Your task to perform on an android device: change the clock style Image 0: 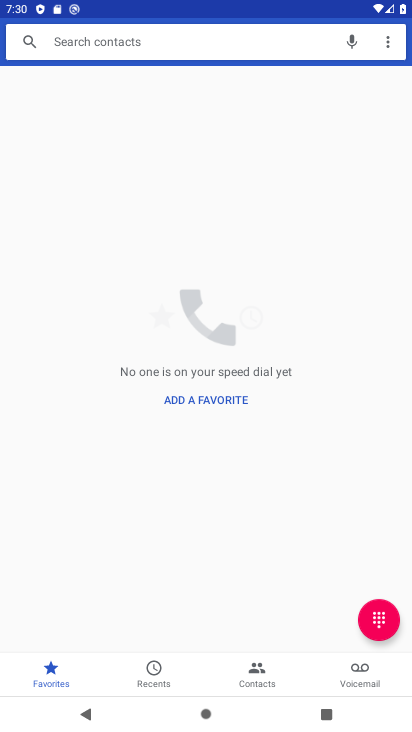
Step 0: press home button
Your task to perform on an android device: change the clock style Image 1: 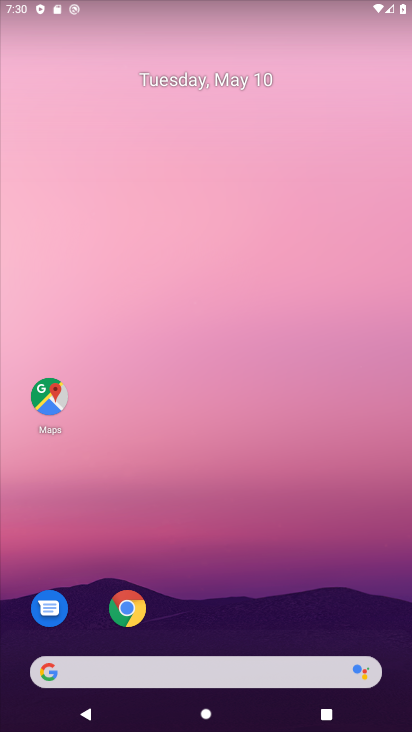
Step 1: click (239, 287)
Your task to perform on an android device: change the clock style Image 2: 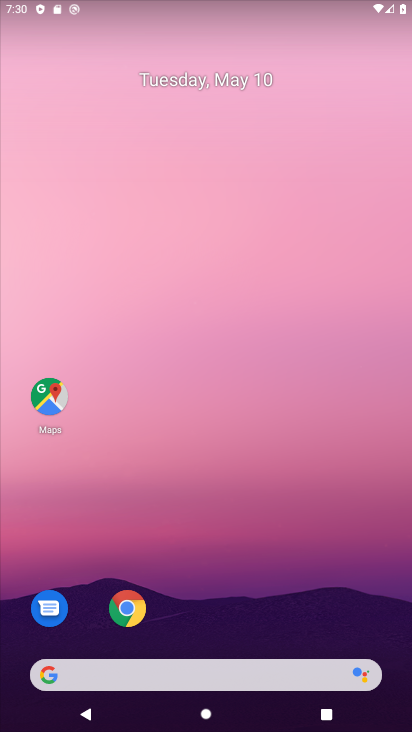
Step 2: drag from (251, 613) to (230, 235)
Your task to perform on an android device: change the clock style Image 3: 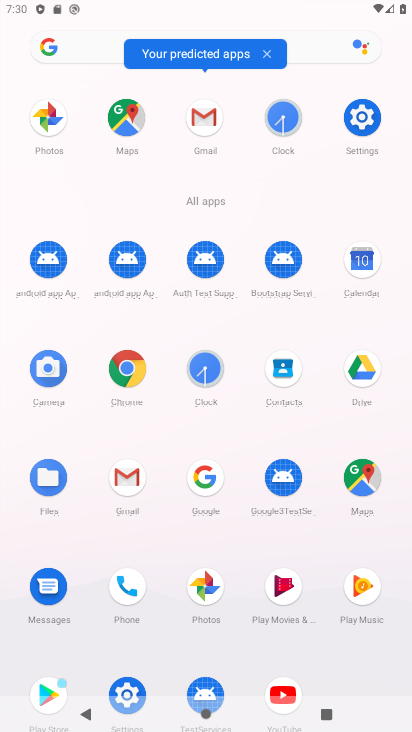
Step 3: click (213, 367)
Your task to perform on an android device: change the clock style Image 4: 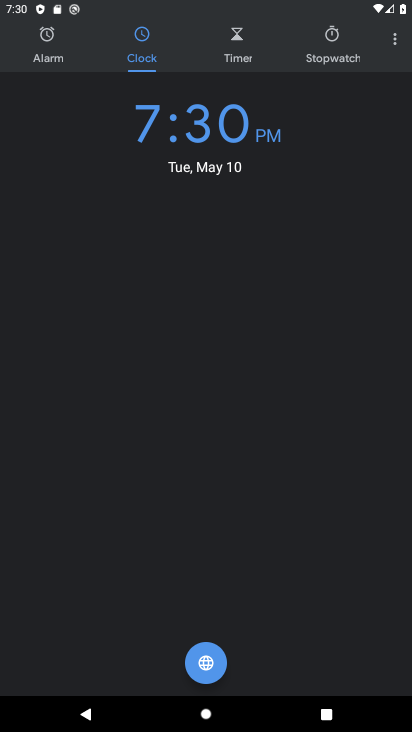
Step 4: click (385, 39)
Your task to perform on an android device: change the clock style Image 5: 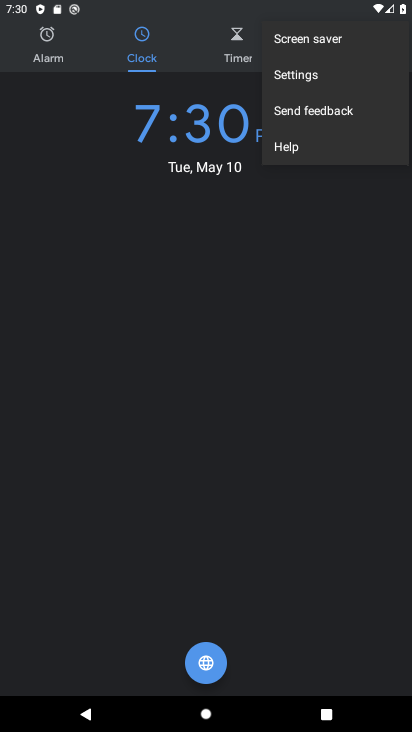
Step 5: click (316, 79)
Your task to perform on an android device: change the clock style Image 6: 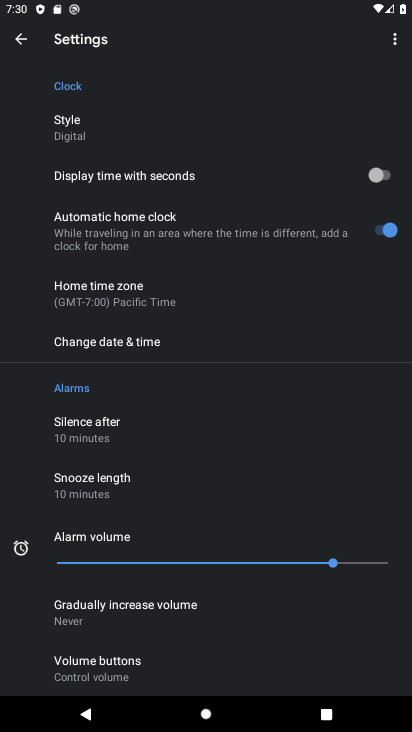
Step 6: click (82, 131)
Your task to perform on an android device: change the clock style Image 7: 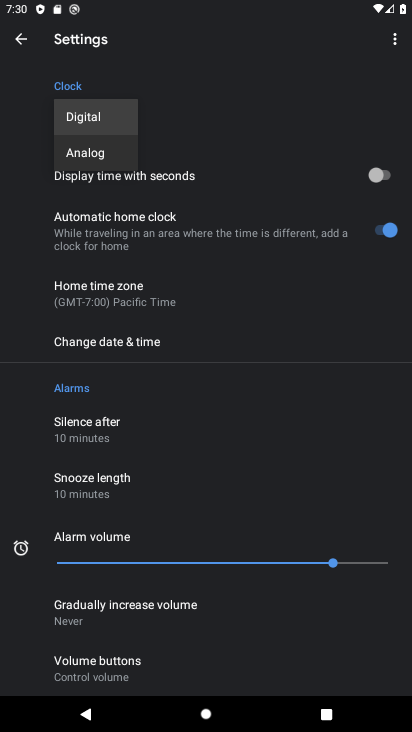
Step 7: click (100, 153)
Your task to perform on an android device: change the clock style Image 8: 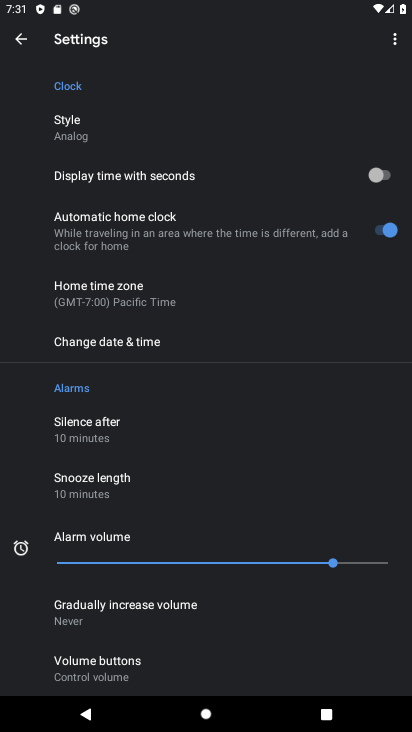
Step 8: task complete